Your task to perform on an android device: toggle show notifications on the lock screen Image 0: 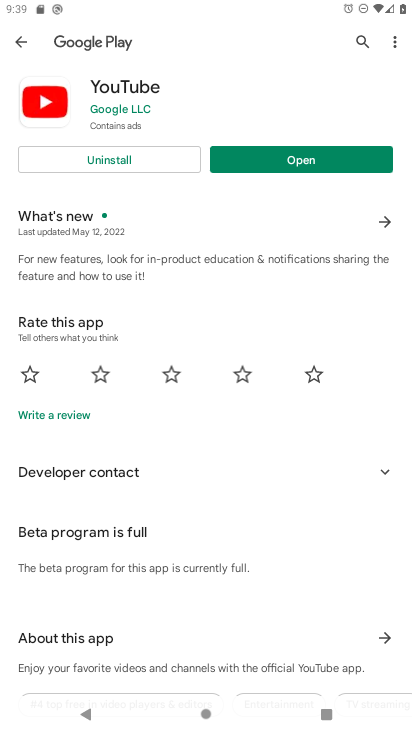
Step 0: press home button
Your task to perform on an android device: toggle show notifications on the lock screen Image 1: 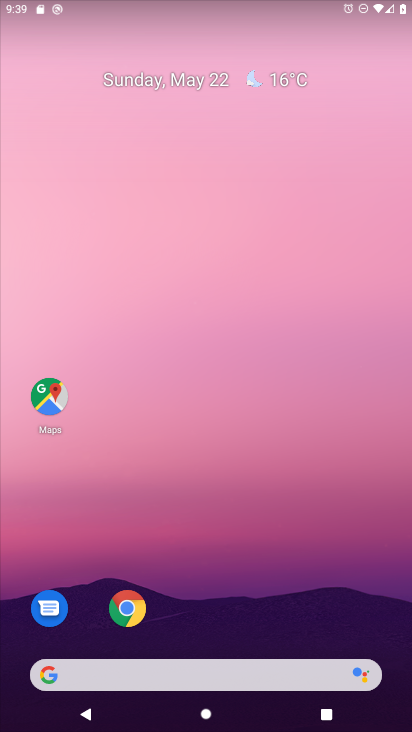
Step 1: drag from (172, 724) to (157, 160)
Your task to perform on an android device: toggle show notifications on the lock screen Image 2: 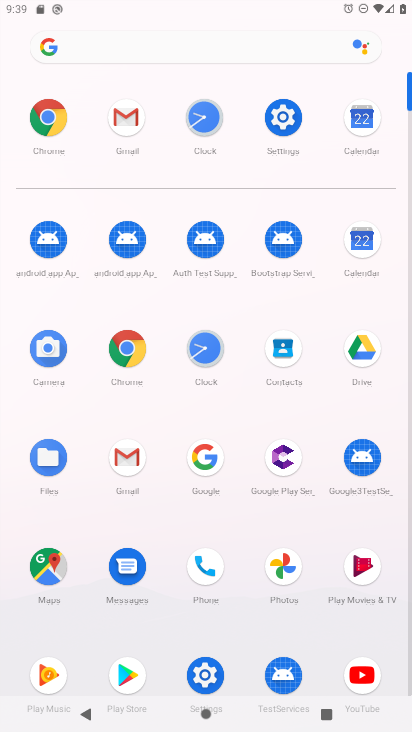
Step 2: click (205, 670)
Your task to perform on an android device: toggle show notifications on the lock screen Image 3: 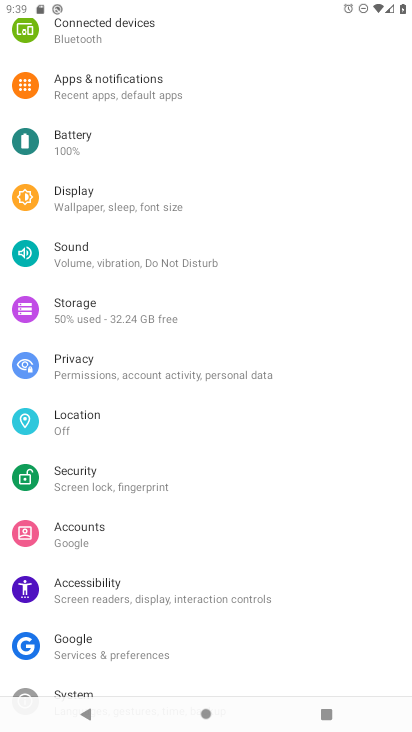
Step 3: click (121, 96)
Your task to perform on an android device: toggle show notifications on the lock screen Image 4: 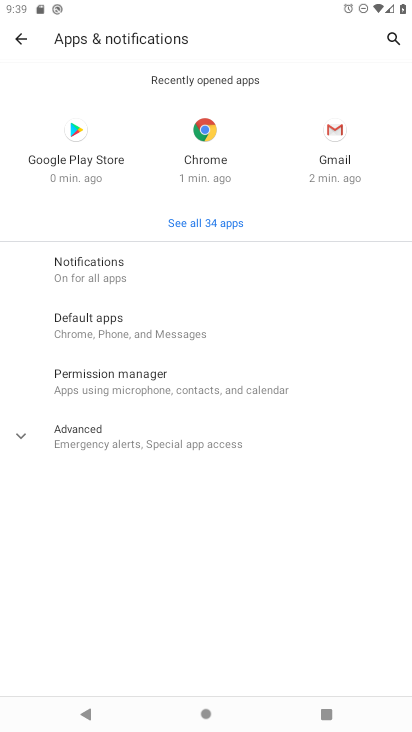
Step 4: click (96, 265)
Your task to perform on an android device: toggle show notifications on the lock screen Image 5: 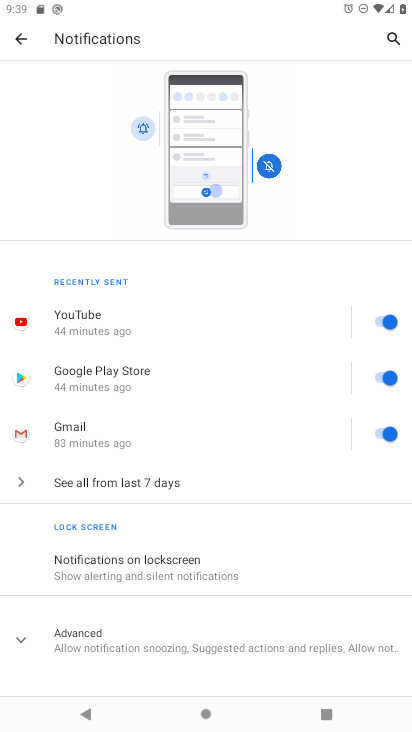
Step 5: click (142, 571)
Your task to perform on an android device: toggle show notifications on the lock screen Image 6: 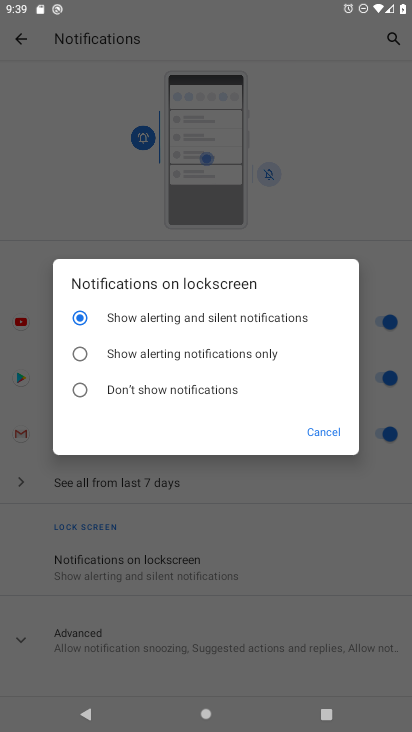
Step 6: click (78, 354)
Your task to perform on an android device: toggle show notifications on the lock screen Image 7: 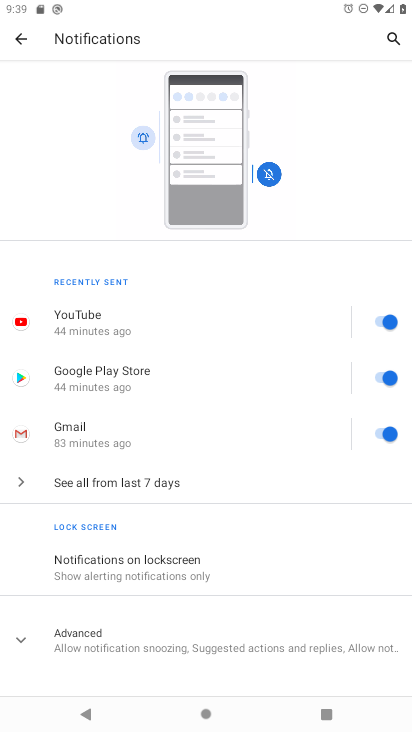
Step 7: task complete